Your task to perform on an android device: Is it going to rain today? Image 0: 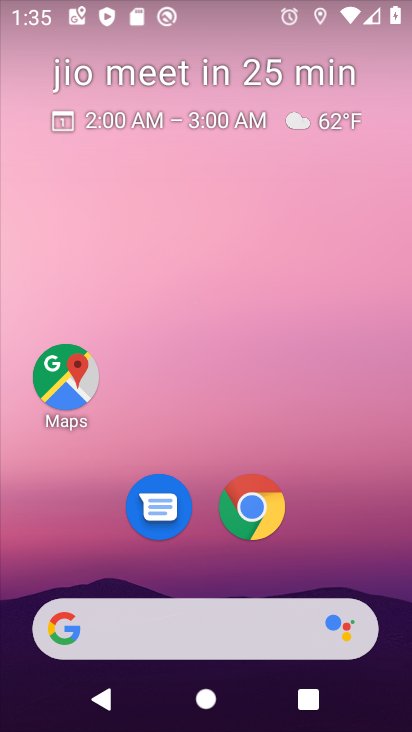
Step 0: click (301, 112)
Your task to perform on an android device: Is it going to rain today? Image 1: 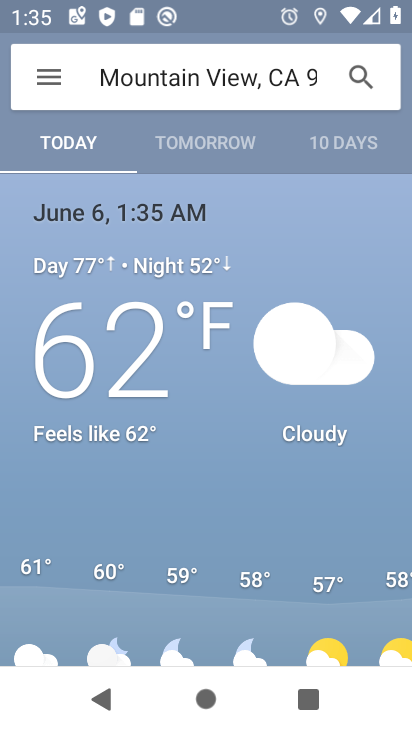
Step 1: task complete